Your task to perform on an android device: Open Yahoo.com Image 0: 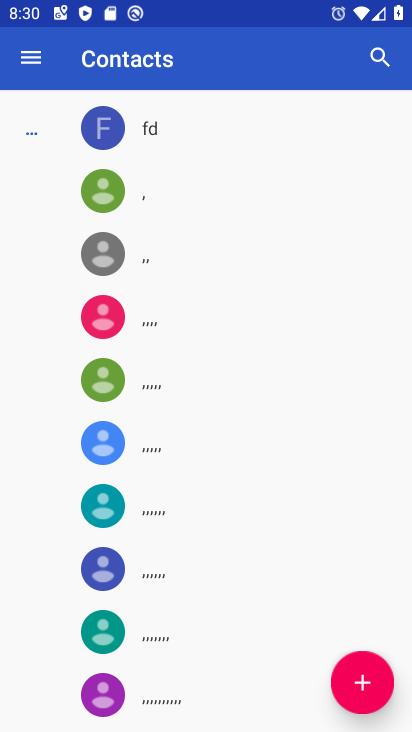
Step 0: press home button
Your task to perform on an android device: Open Yahoo.com Image 1: 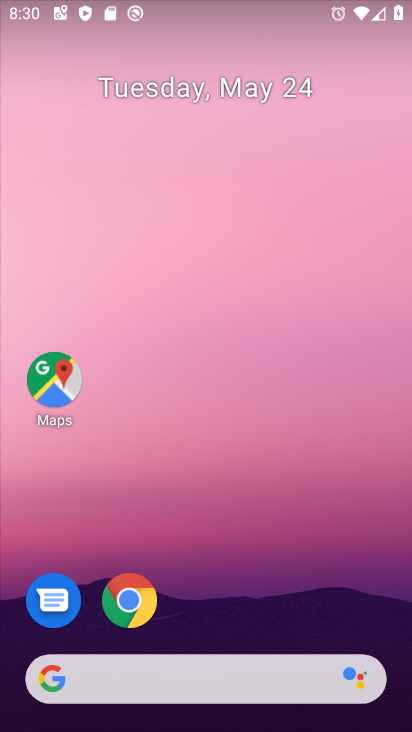
Step 1: drag from (196, 718) to (53, 151)
Your task to perform on an android device: Open Yahoo.com Image 2: 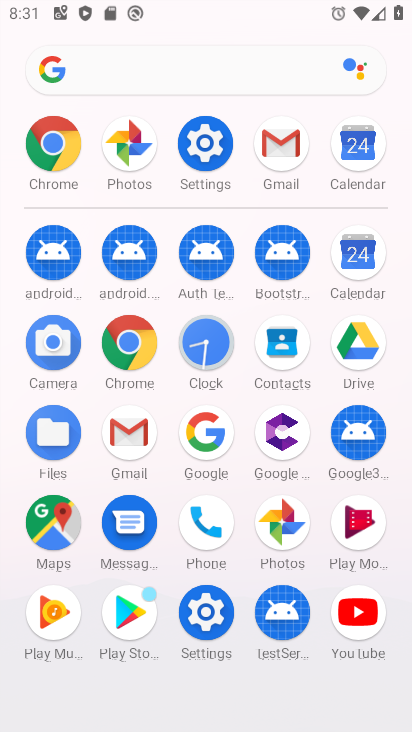
Step 2: click (51, 144)
Your task to perform on an android device: Open Yahoo.com Image 3: 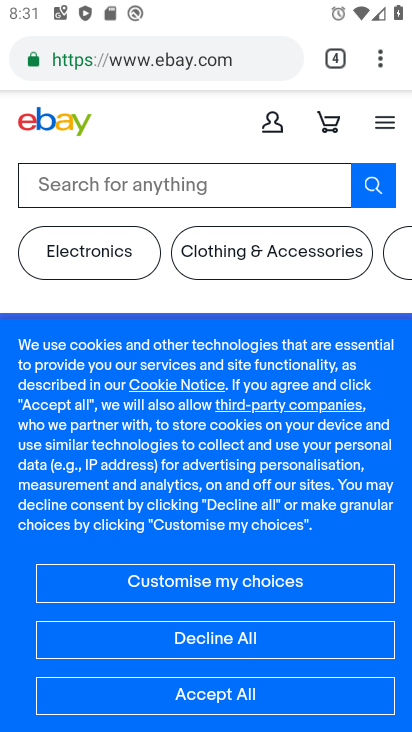
Step 3: click (380, 66)
Your task to perform on an android device: Open Yahoo.com Image 4: 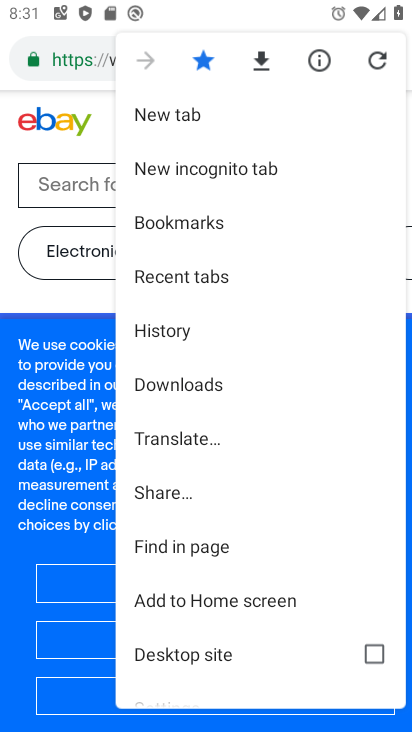
Step 4: click (158, 117)
Your task to perform on an android device: Open Yahoo.com Image 5: 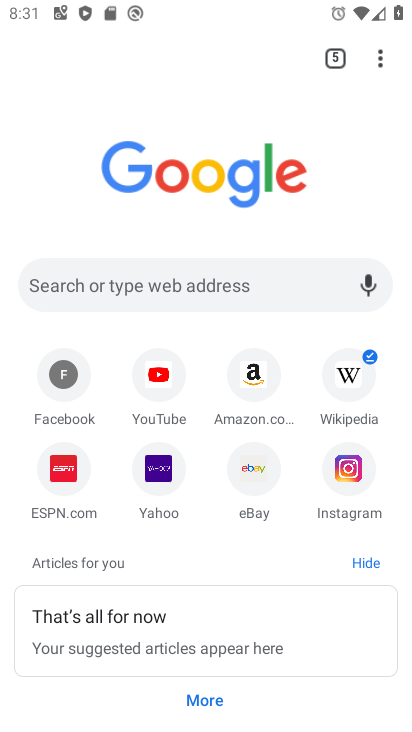
Step 5: click (162, 472)
Your task to perform on an android device: Open Yahoo.com Image 6: 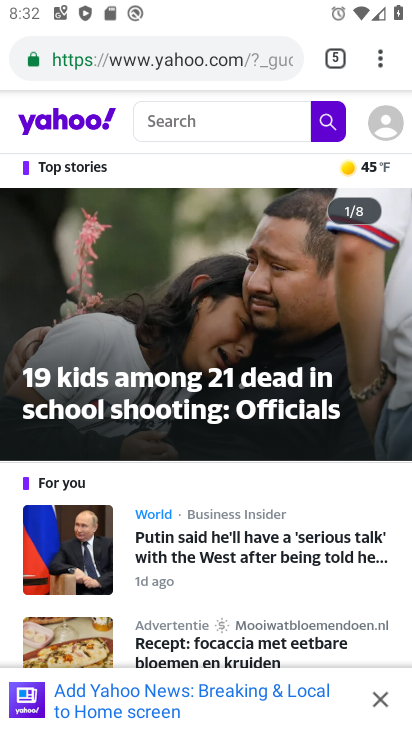
Step 6: task complete